Your task to perform on an android device: allow cookies in the chrome app Image 0: 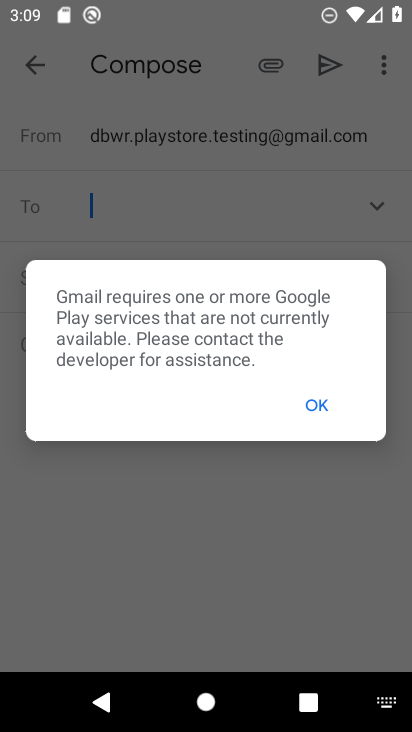
Step 0: press back button
Your task to perform on an android device: allow cookies in the chrome app Image 1: 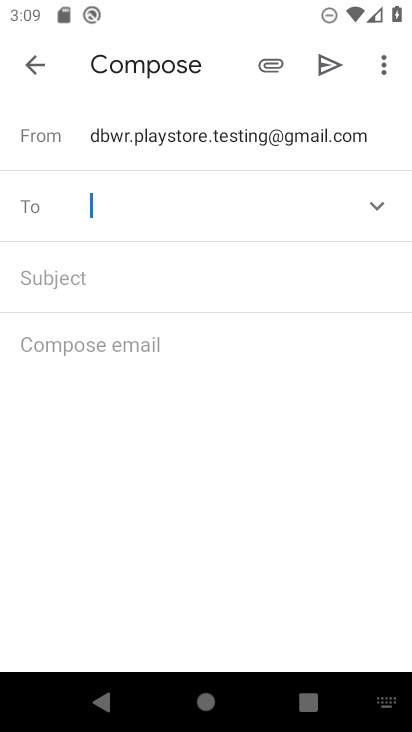
Step 1: press home button
Your task to perform on an android device: allow cookies in the chrome app Image 2: 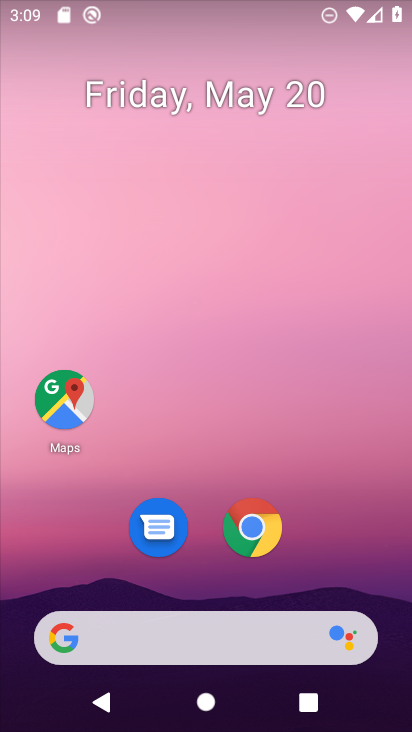
Step 2: click (245, 531)
Your task to perform on an android device: allow cookies in the chrome app Image 3: 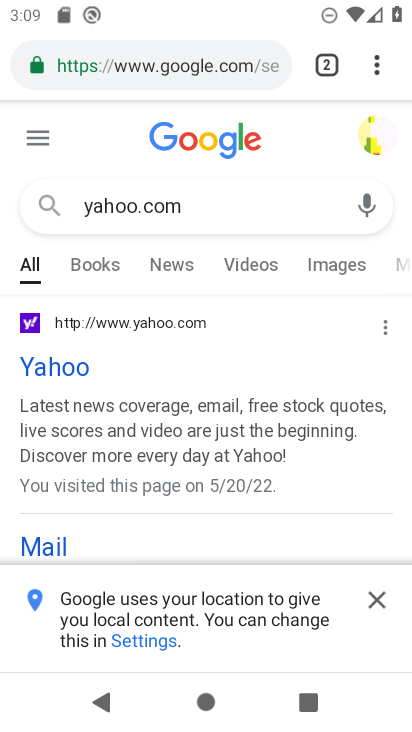
Step 3: drag from (375, 69) to (151, 570)
Your task to perform on an android device: allow cookies in the chrome app Image 4: 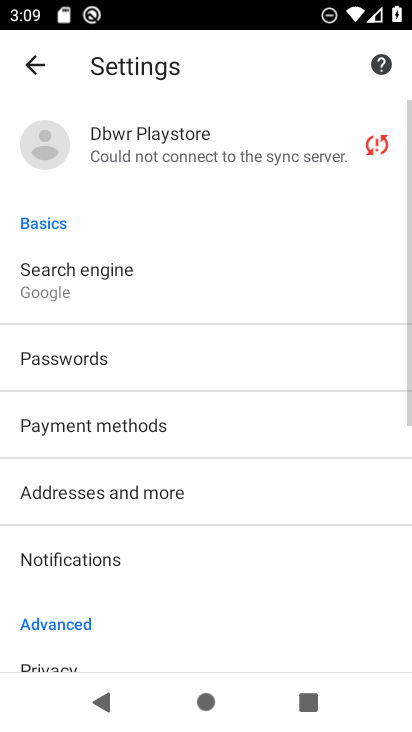
Step 4: drag from (125, 635) to (280, 79)
Your task to perform on an android device: allow cookies in the chrome app Image 5: 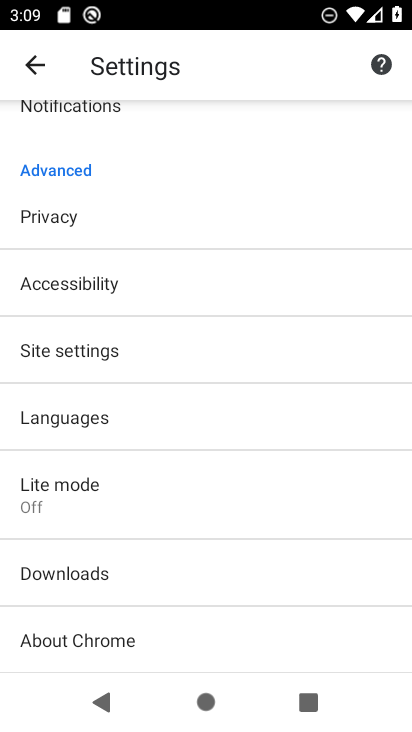
Step 5: click (100, 349)
Your task to perform on an android device: allow cookies in the chrome app Image 6: 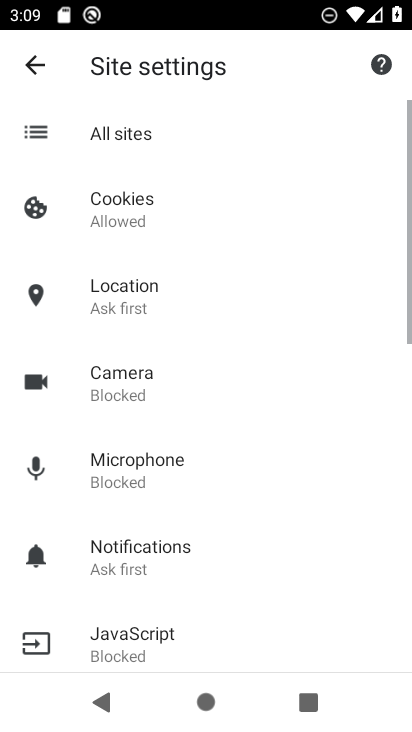
Step 6: click (116, 201)
Your task to perform on an android device: allow cookies in the chrome app Image 7: 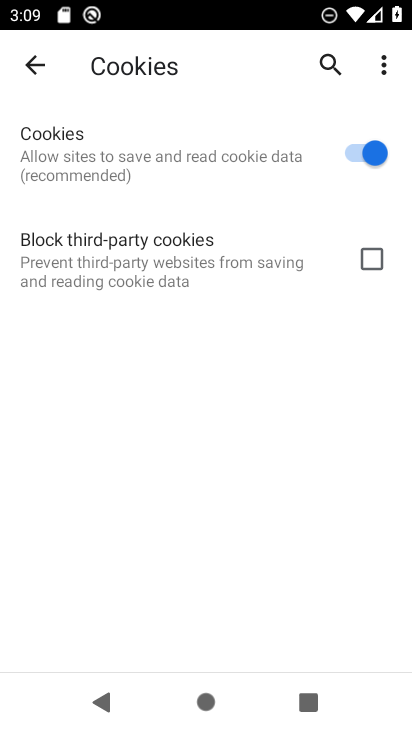
Step 7: task complete